Your task to perform on an android device: Set the phone to "Do not disturb". Image 0: 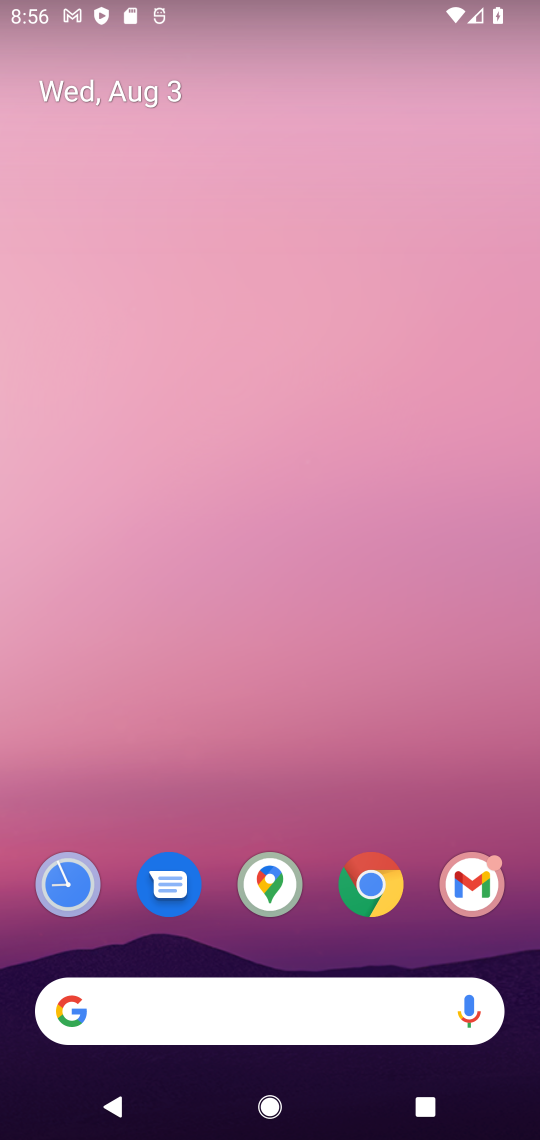
Step 0: drag from (46, 1047) to (298, 395)
Your task to perform on an android device: Set the phone to "Do not disturb". Image 1: 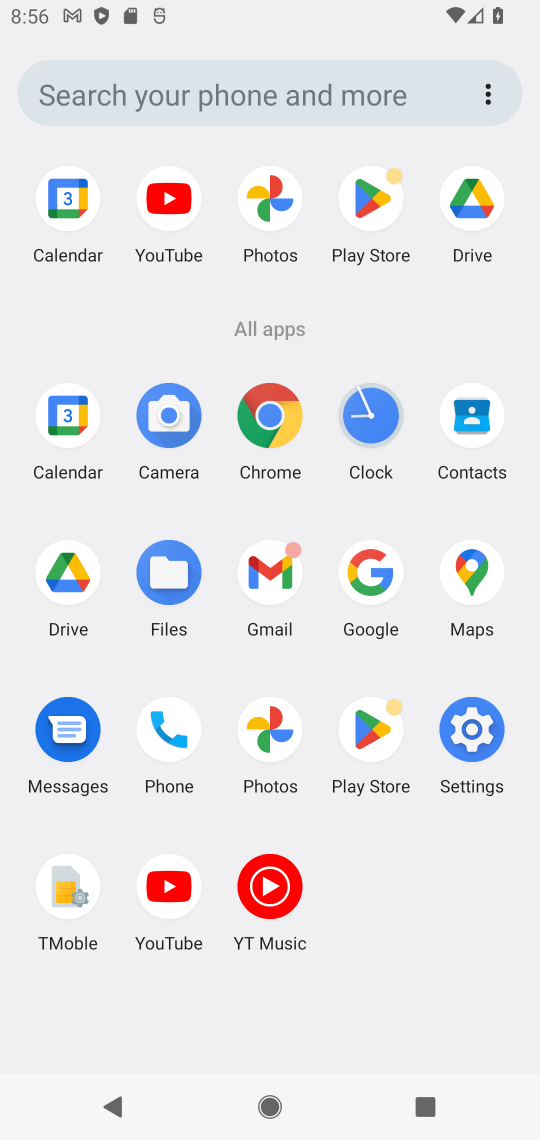
Step 1: click (478, 749)
Your task to perform on an android device: Set the phone to "Do not disturb". Image 2: 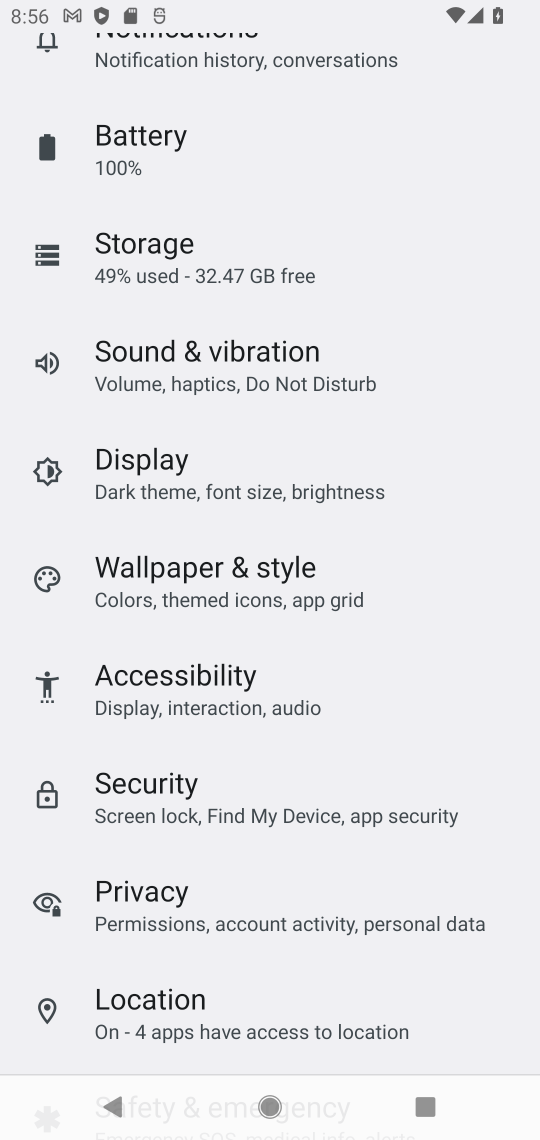
Step 2: drag from (173, 898) to (222, 650)
Your task to perform on an android device: Set the phone to "Do not disturb". Image 3: 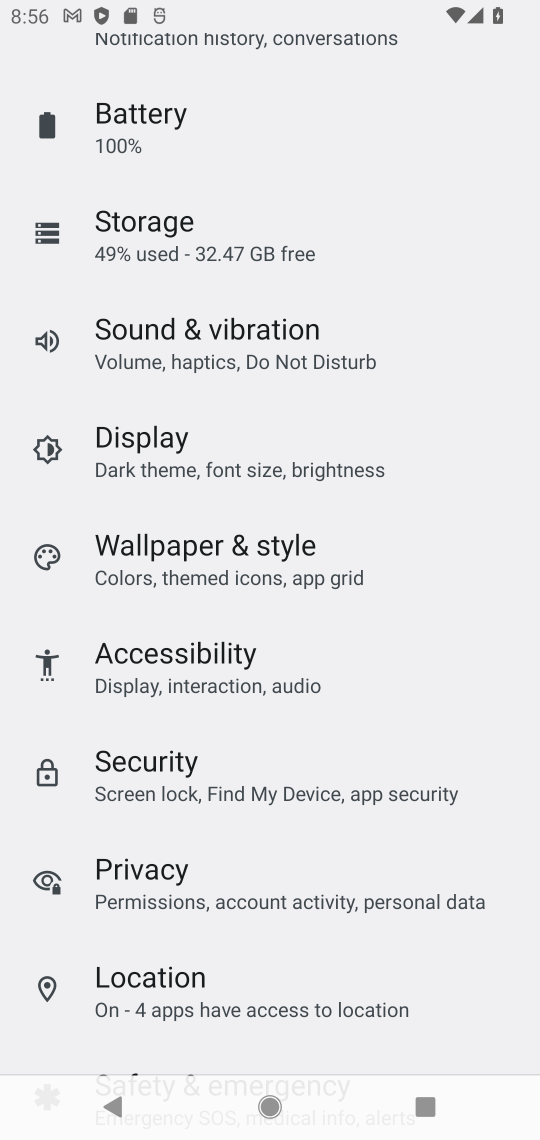
Step 3: click (234, 360)
Your task to perform on an android device: Set the phone to "Do not disturb". Image 4: 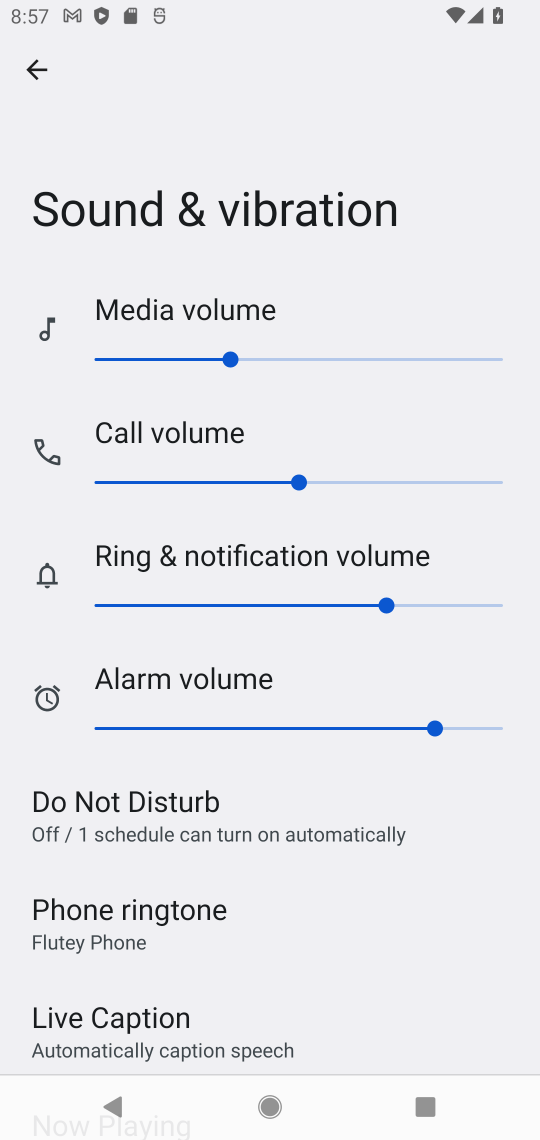
Step 4: click (170, 815)
Your task to perform on an android device: Set the phone to "Do not disturb". Image 5: 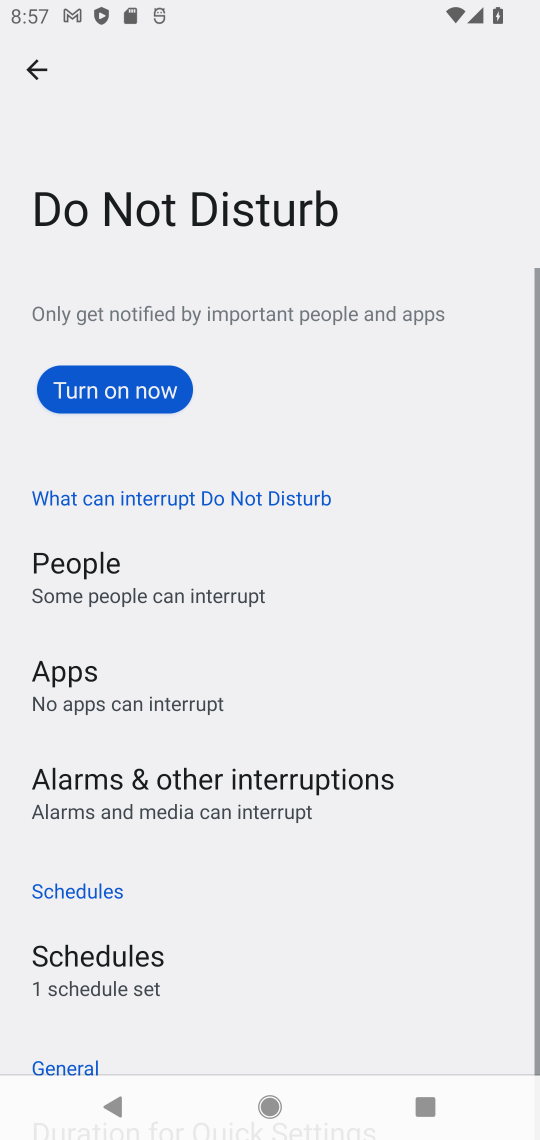
Step 5: click (114, 391)
Your task to perform on an android device: Set the phone to "Do not disturb". Image 6: 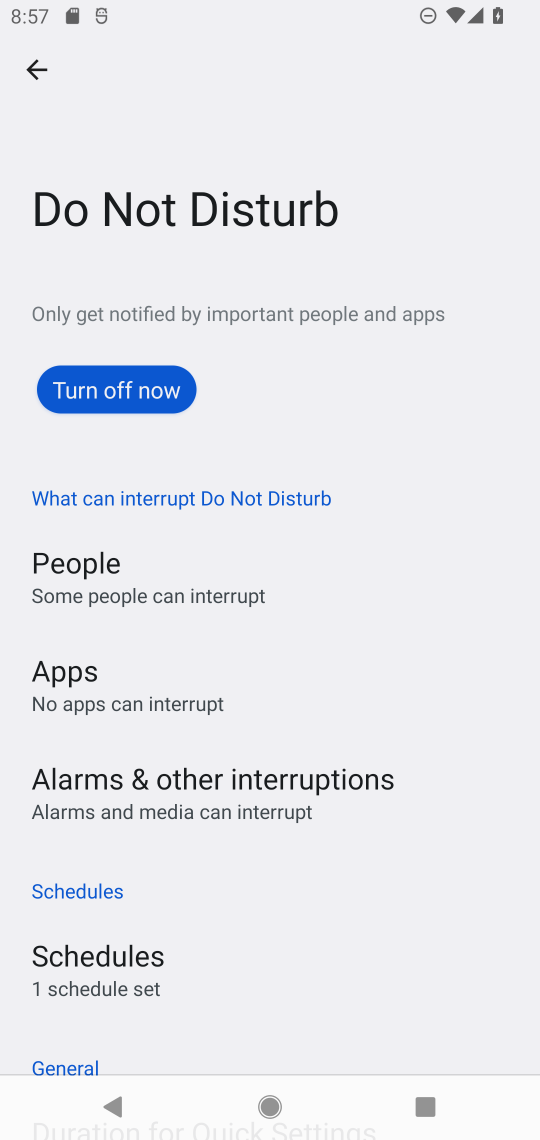
Step 6: task complete